Your task to perform on an android device: open app "Google Photos" (install if not already installed) Image 0: 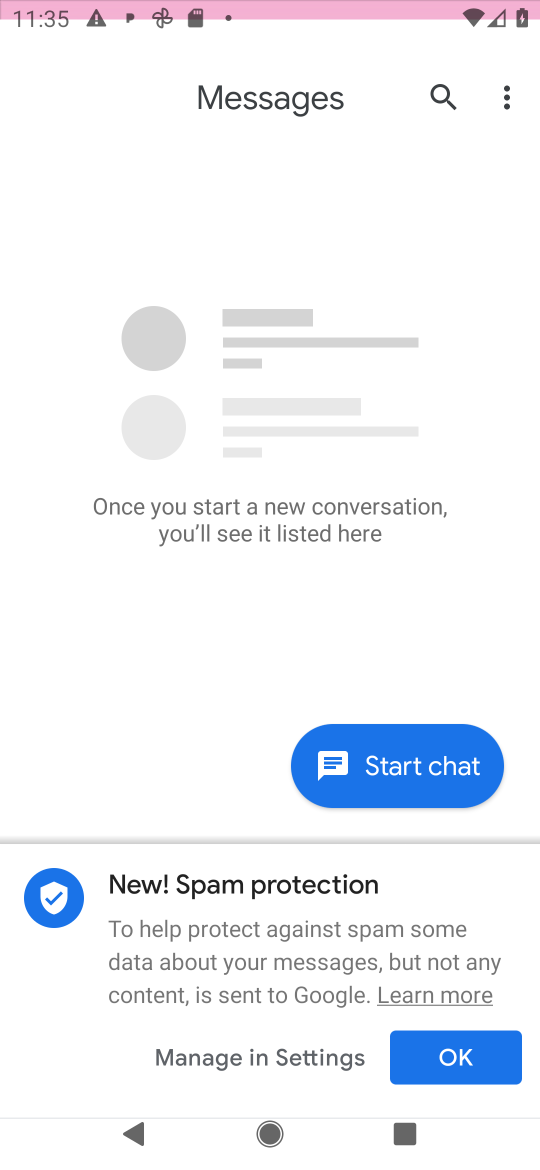
Step 0: press home button
Your task to perform on an android device: open app "Google Photos" (install if not already installed) Image 1: 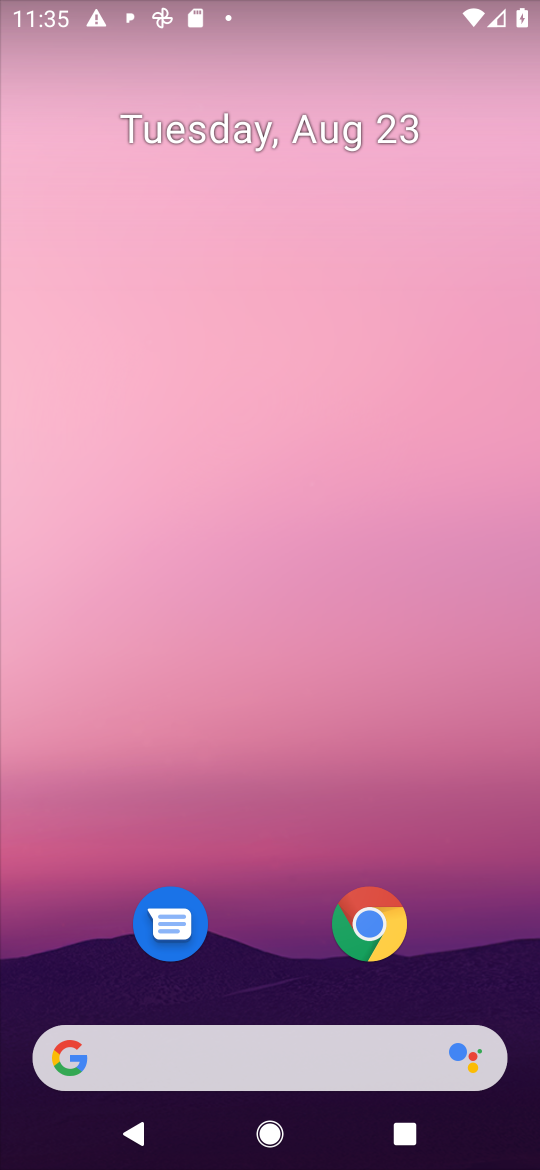
Step 1: drag from (473, 865) to (472, 225)
Your task to perform on an android device: open app "Google Photos" (install if not already installed) Image 2: 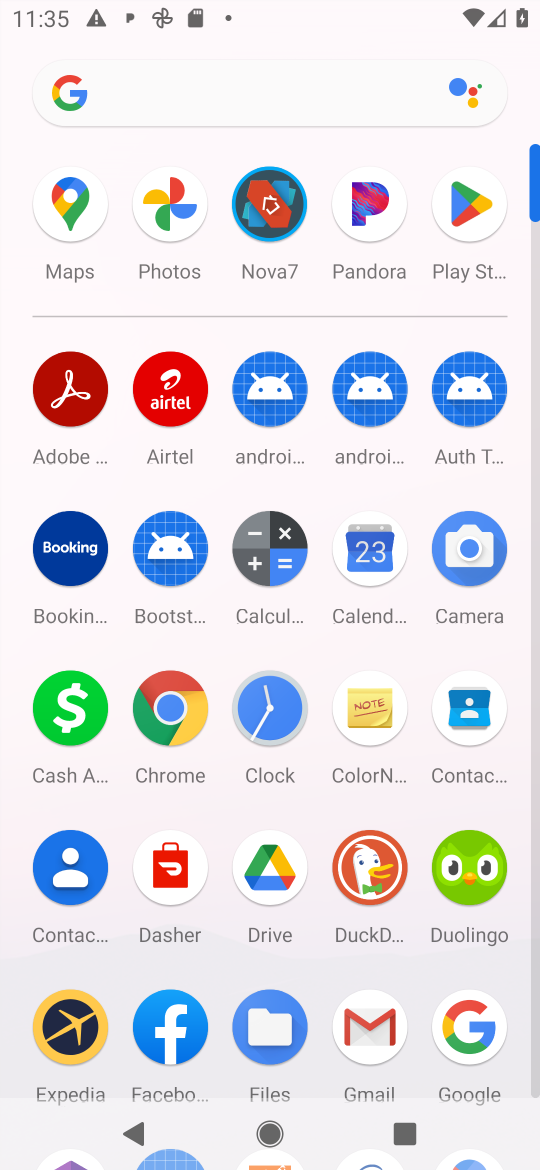
Step 2: click (465, 201)
Your task to perform on an android device: open app "Google Photos" (install if not already installed) Image 3: 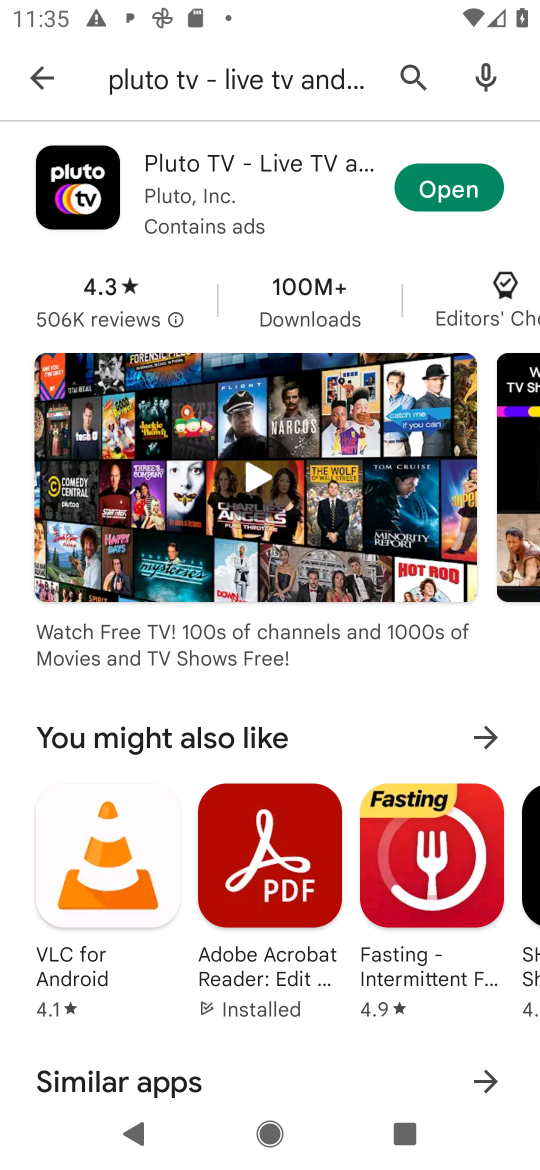
Step 3: press back button
Your task to perform on an android device: open app "Google Photos" (install if not already installed) Image 4: 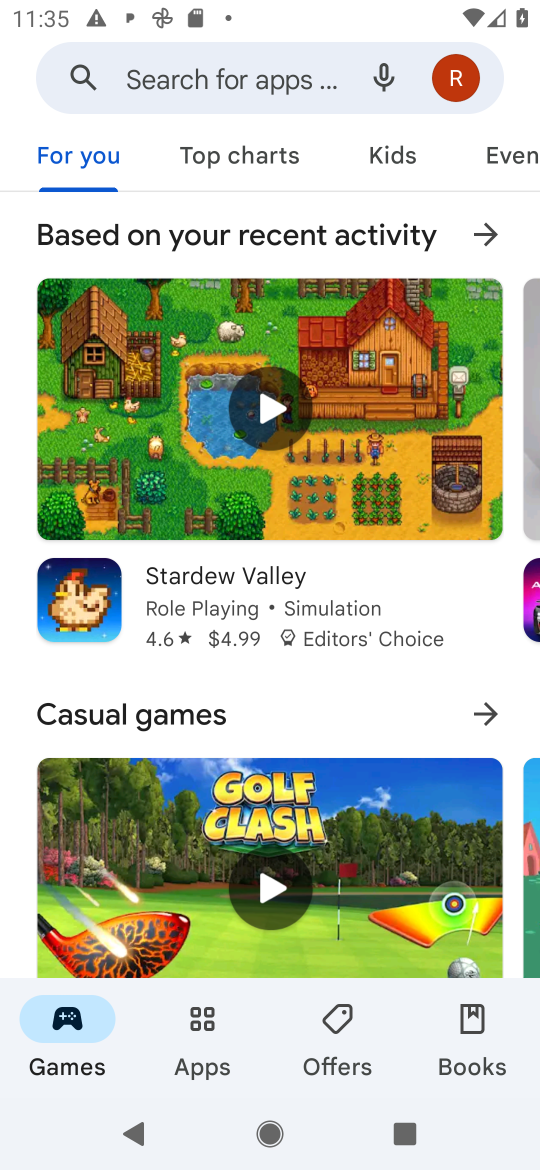
Step 4: click (244, 81)
Your task to perform on an android device: open app "Google Photos" (install if not already installed) Image 5: 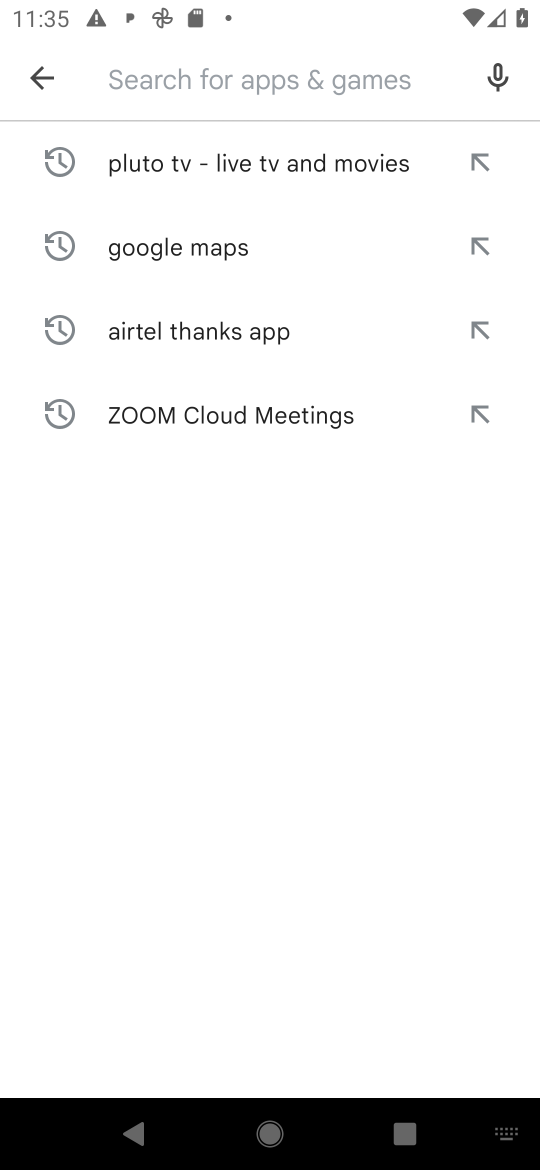
Step 5: type "google photos"
Your task to perform on an android device: open app "Google Photos" (install if not already installed) Image 6: 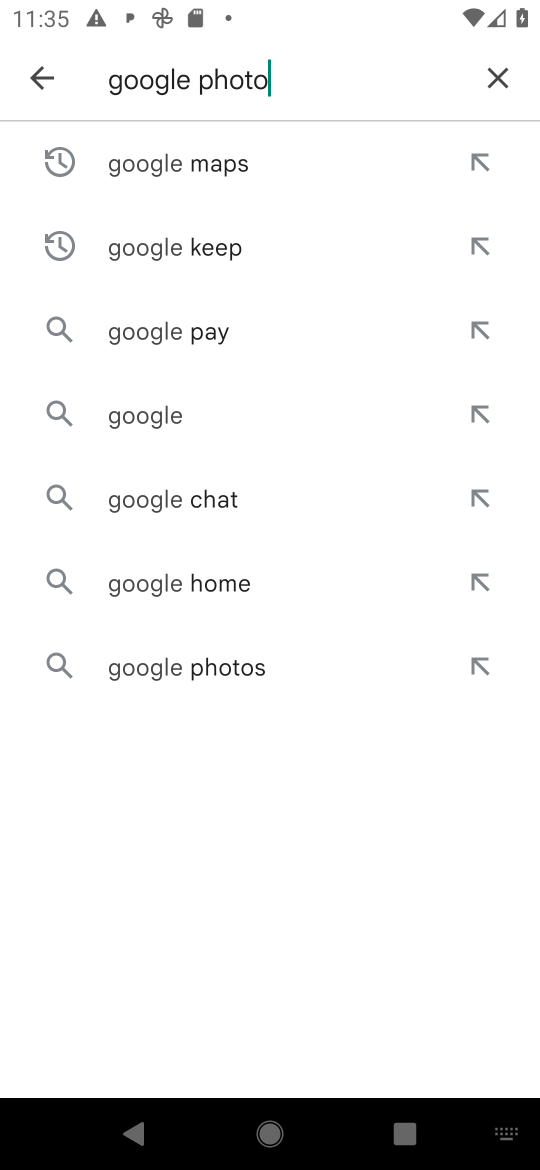
Step 6: press enter
Your task to perform on an android device: open app "Google Photos" (install if not already installed) Image 7: 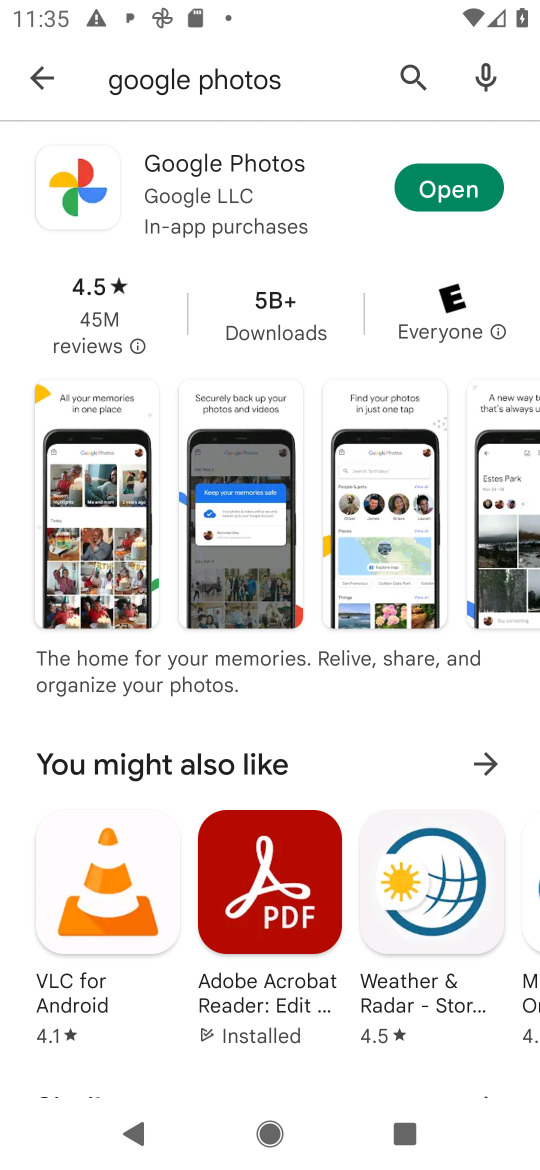
Step 7: click (465, 185)
Your task to perform on an android device: open app "Google Photos" (install if not already installed) Image 8: 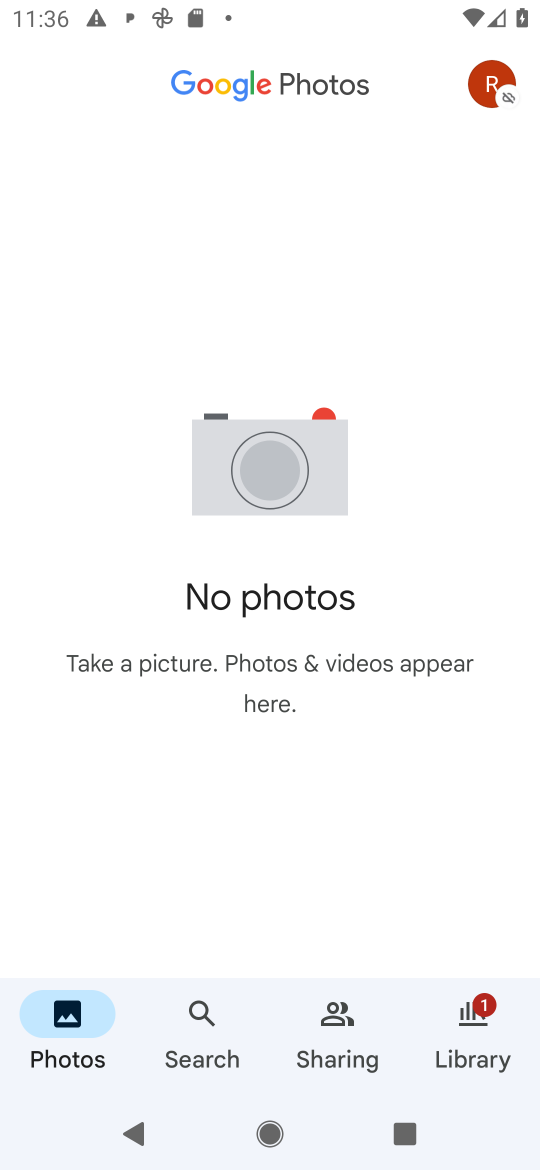
Step 8: task complete